Your task to perform on an android device: Go to CNN.com Image 0: 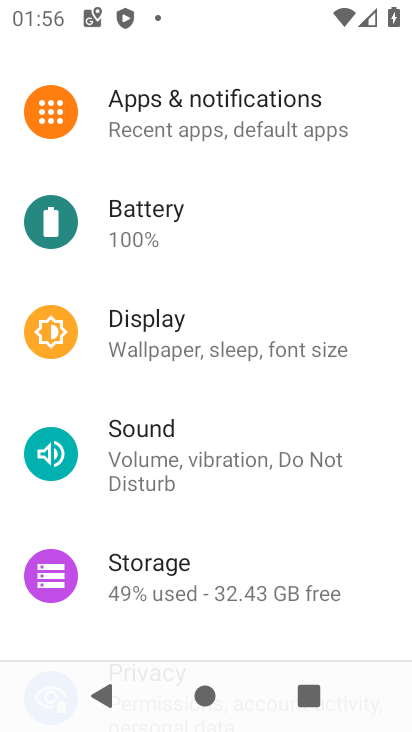
Step 0: press home button
Your task to perform on an android device: Go to CNN.com Image 1: 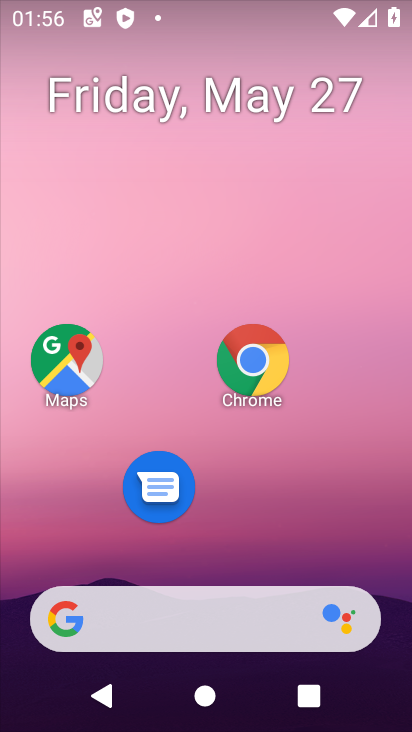
Step 1: drag from (258, 491) to (286, 38)
Your task to perform on an android device: Go to CNN.com Image 2: 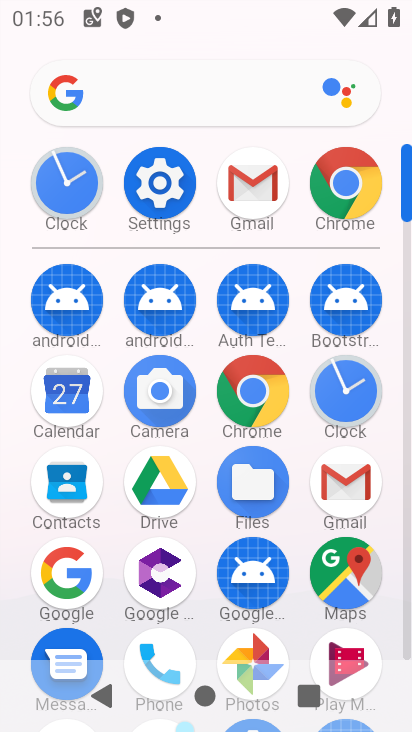
Step 2: click (64, 575)
Your task to perform on an android device: Go to CNN.com Image 3: 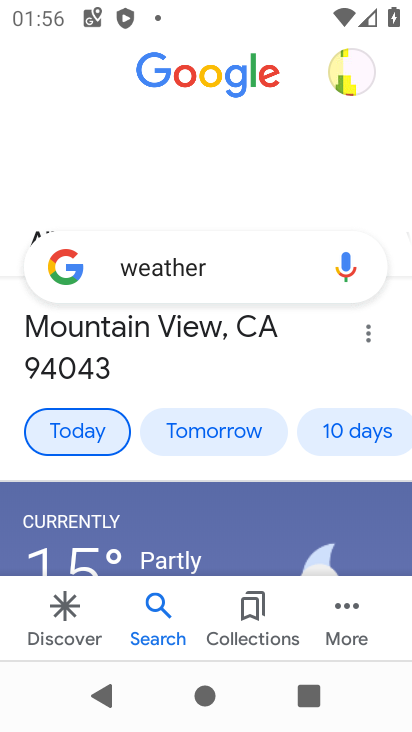
Step 3: click (220, 278)
Your task to perform on an android device: Go to CNN.com Image 4: 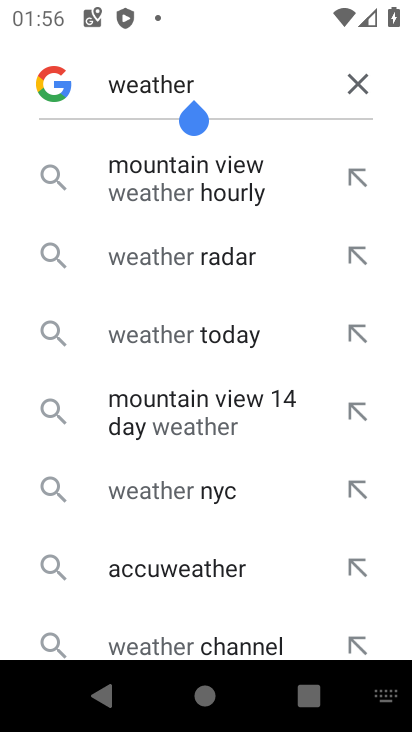
Step 4: click (345, 87)
Your task to perform on an android device: Go to CNN.com Image 5: 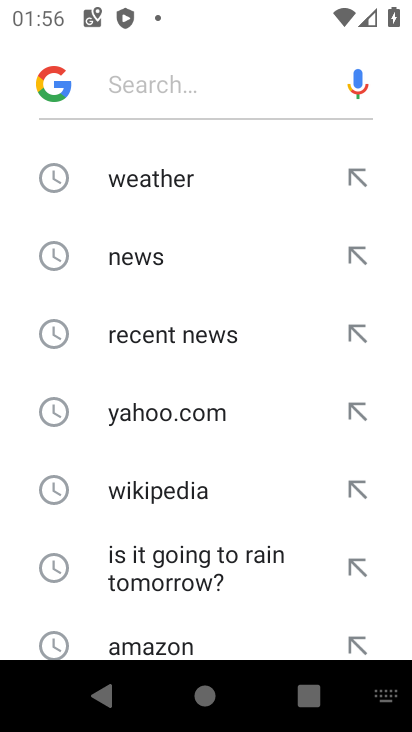
Step 5: drag from (204, 569) to (203, 80)
Your task to perform on an android device: Go to CNN.com Image 6: 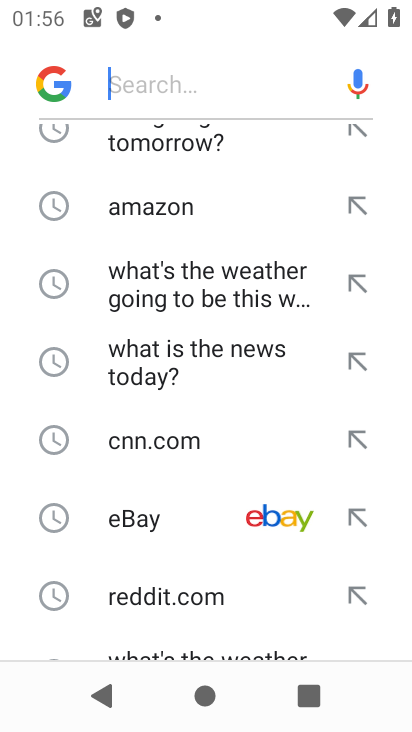
Step 6: click (133, 435)
Your task to perform on an android device: Go to CNN.com Image 7: 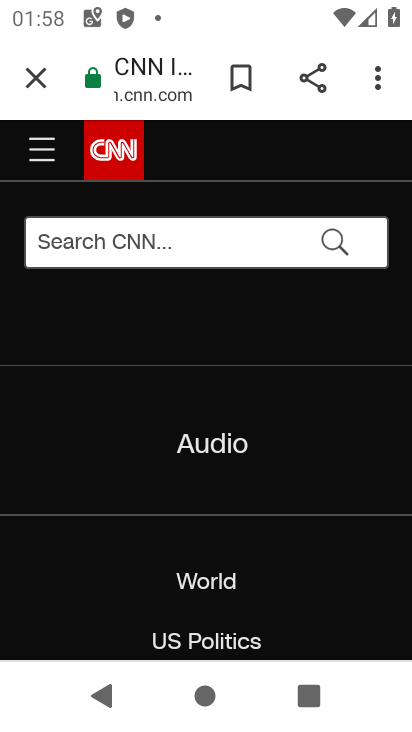
Step 7: task complete